Your task to perform on an android device: Open the stopwatch Image 0: 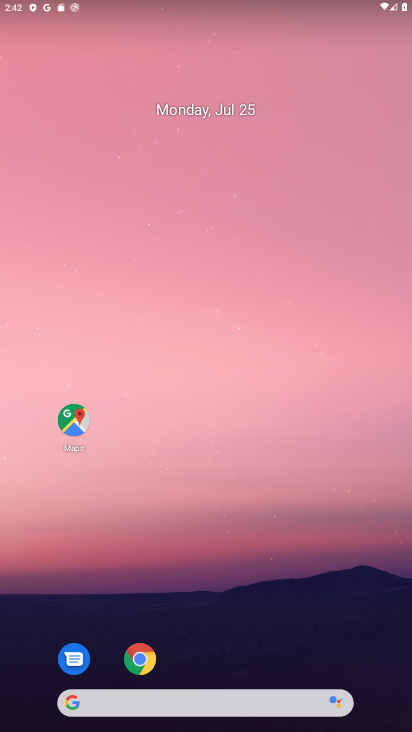
Step 0: drag from (207, 675) to (198, 28)
Your task to perform on an android device: Open the stopwatch Image 1: 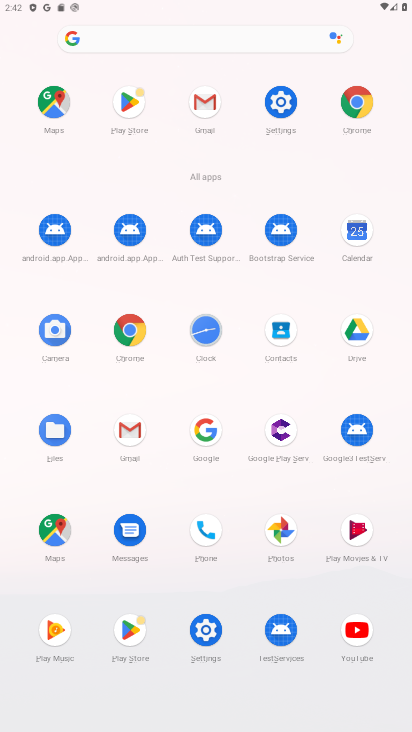
Step 1: click (201, 320)
Your task to perform on an android device: Open the stopwatch Image 2: 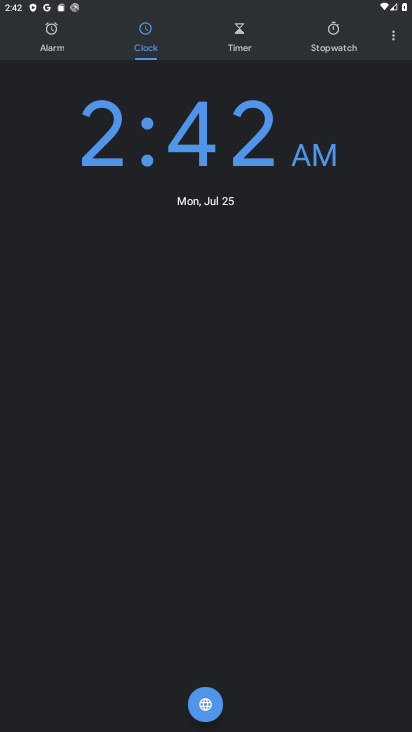
Step 2: click (349, 40)
Your task to perform on an android device: Open the stopwatch Image 3: 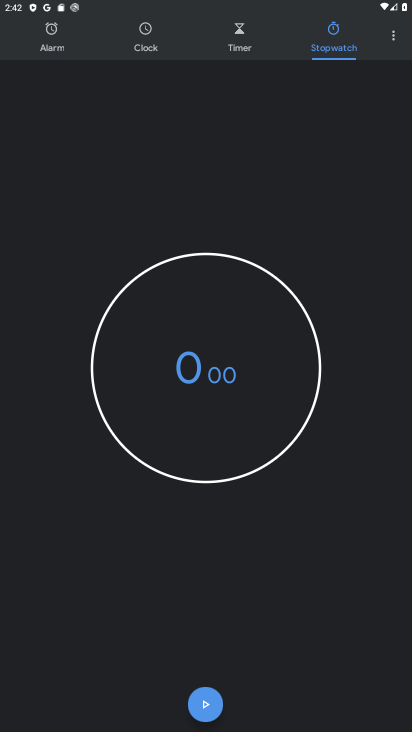
Step 3: task complete